Your task to perform on an android device: open a new tab in the chrome app Image 0: 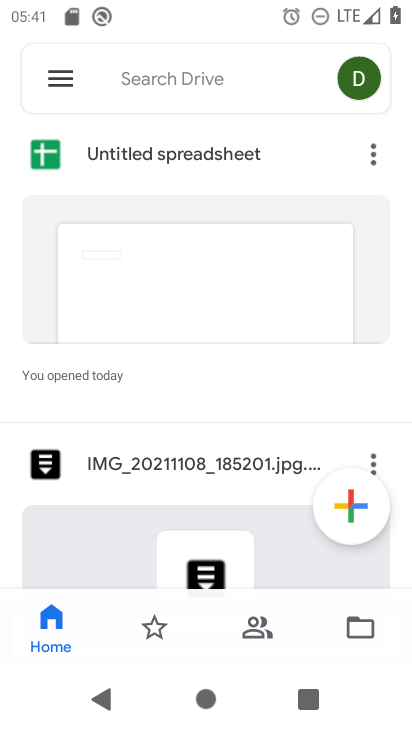
Step 0: press home button
Your task to perform on an android device: open a new tab in the chrome app Image 1: 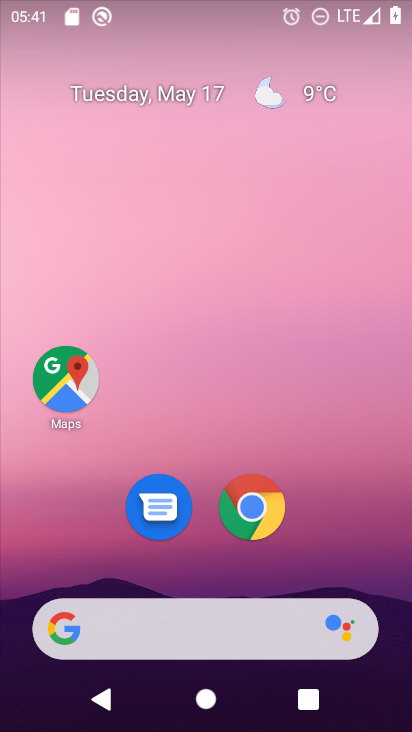
Step 1: click (248, 503)
Your task to perform on an android device: open a new tab in the chrome app Image 2: 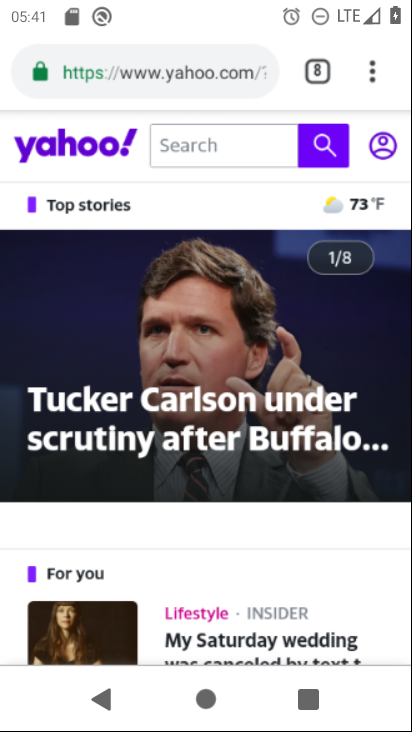
Step 2: click (367, 70)
Your task to perform on an android device: open a new tab in the chrome app Image 3: 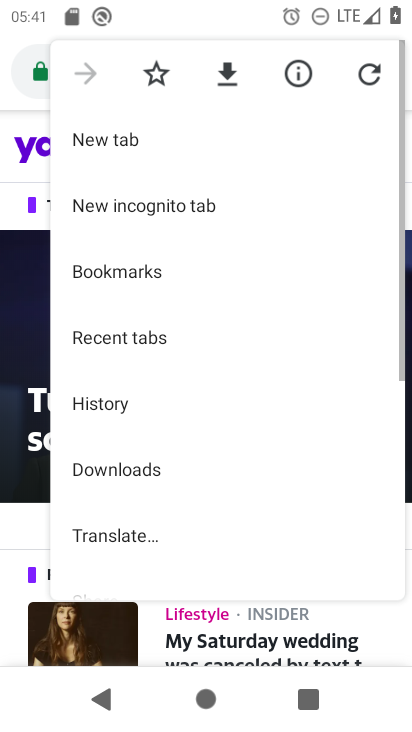
Step 3: click (265, 153)
Your task to perform on an android device: open a new tab in the chrome app Image 4: 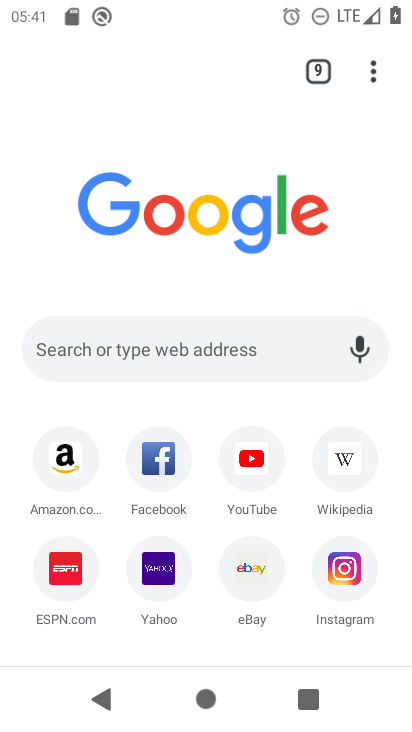
Step 4: task complete